Your task to perform on an android device: Look up the best rated headphones on Aliexpress Image 0: 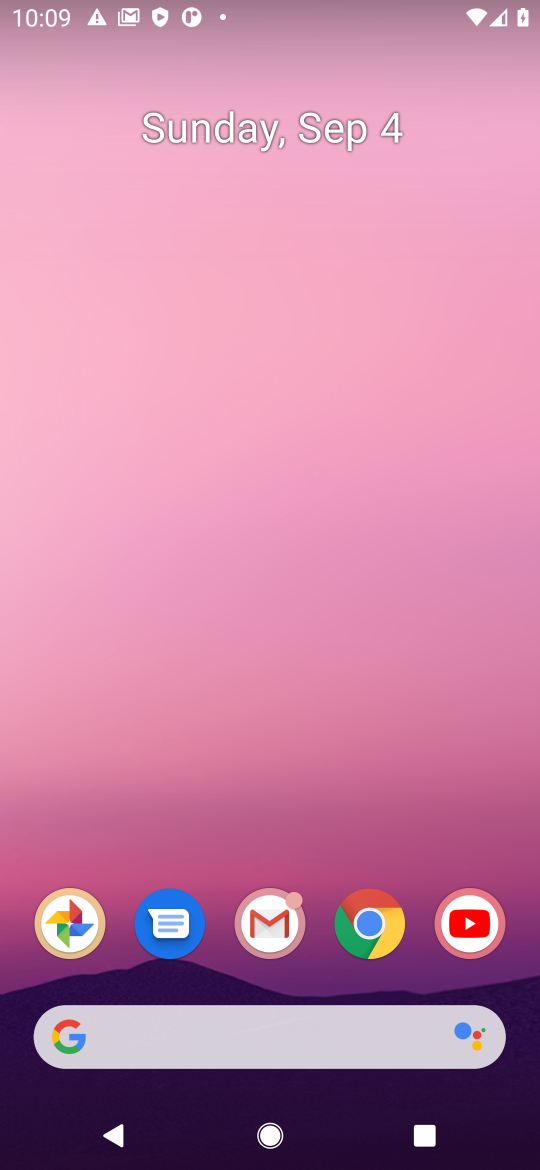
Step 0: click (385, 1043)
Your task to perform on an android device: Look up the best rated headphones on Aliexpress Image 1: 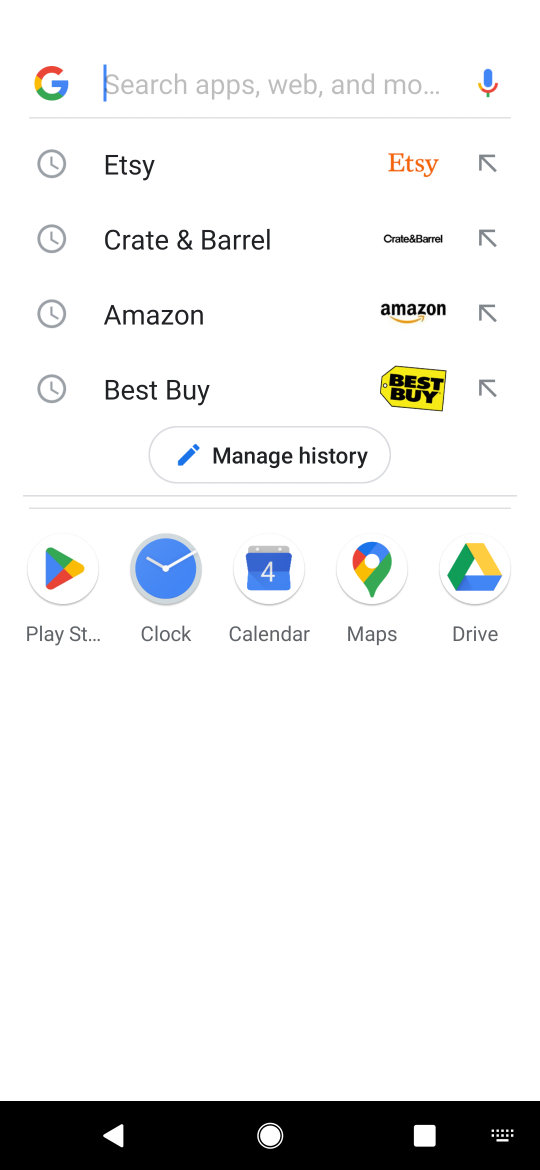
Step 1: press enter
Your task to perform on an android device: Look up the best rated headphones on Aliexpress Image 2: 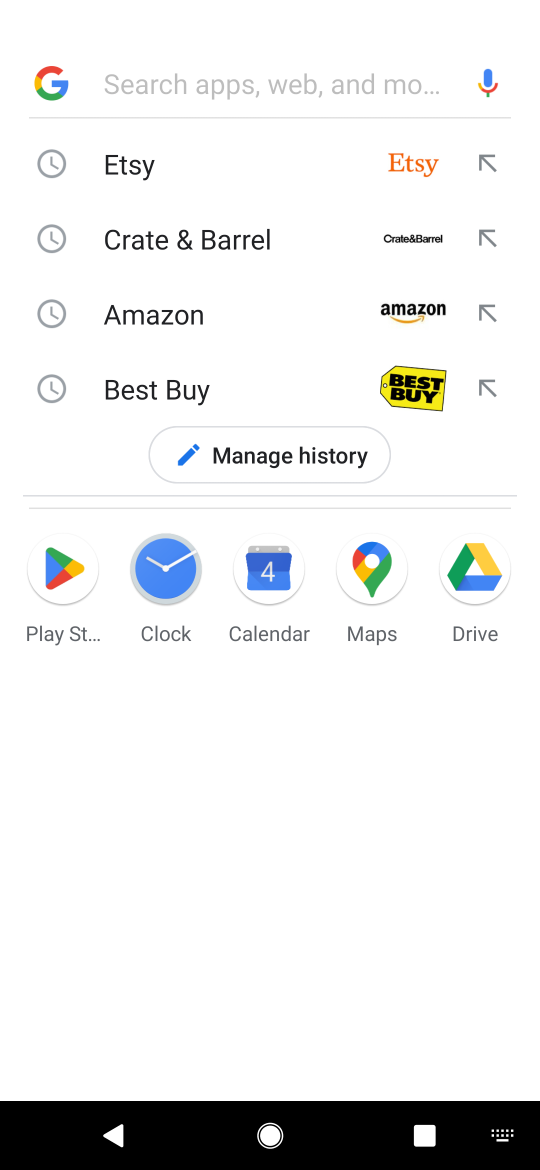
Step 2: type "aliexpress"
Your task to perform on an android device: Look up the best rated headphones on Aliexpress Image 3: 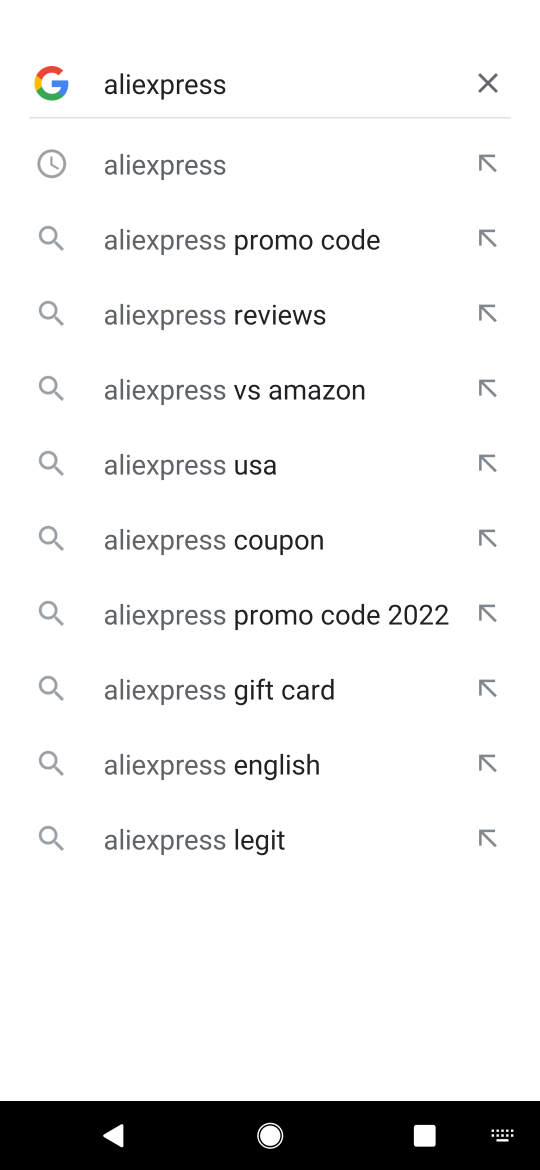
Step 3: click (222, 173)
Your task to perform on an android device: Look up the best rated headphones on Aliexpress Image 4: 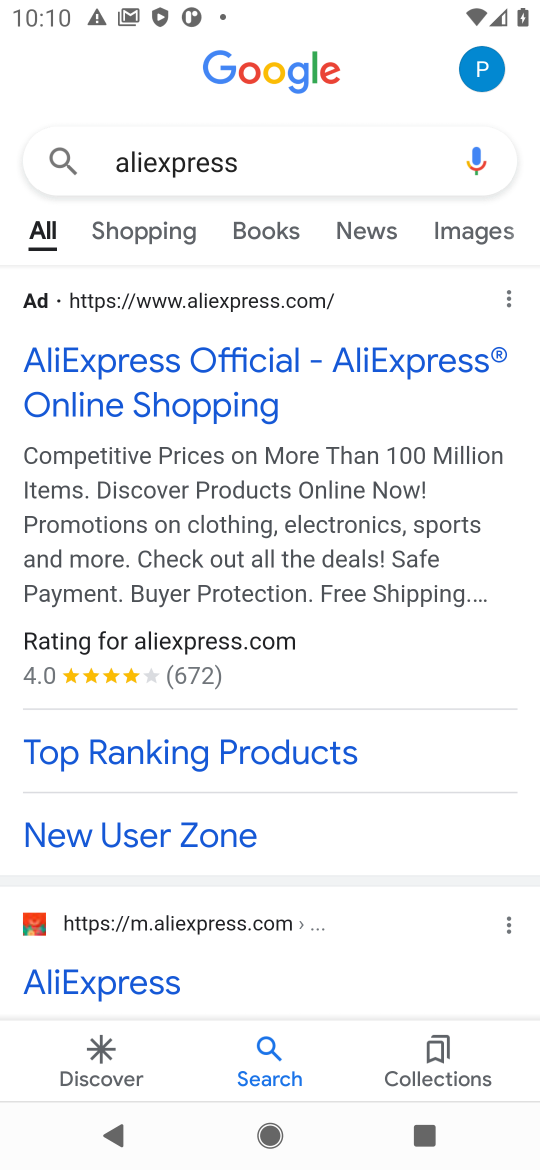
Step 4: click (203, 390)
Your task to perform on an android device: Look up the best rated headphones on Aliexpress Image 5: 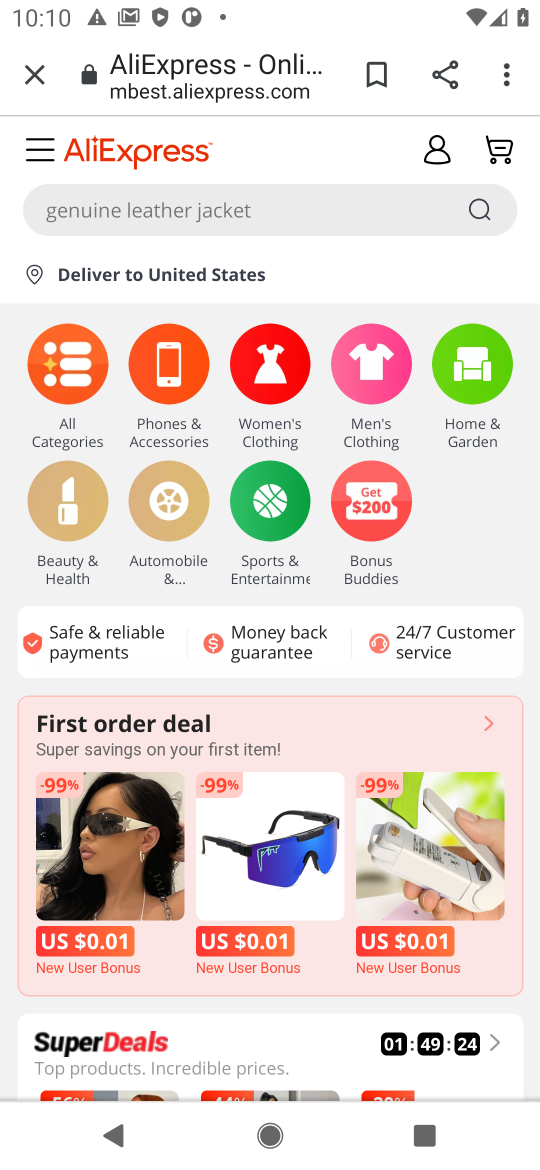
Step 5: click (178, 208)
Your task to perform on an android device: Look up the best rated headphones on Aliexpress Image 6: 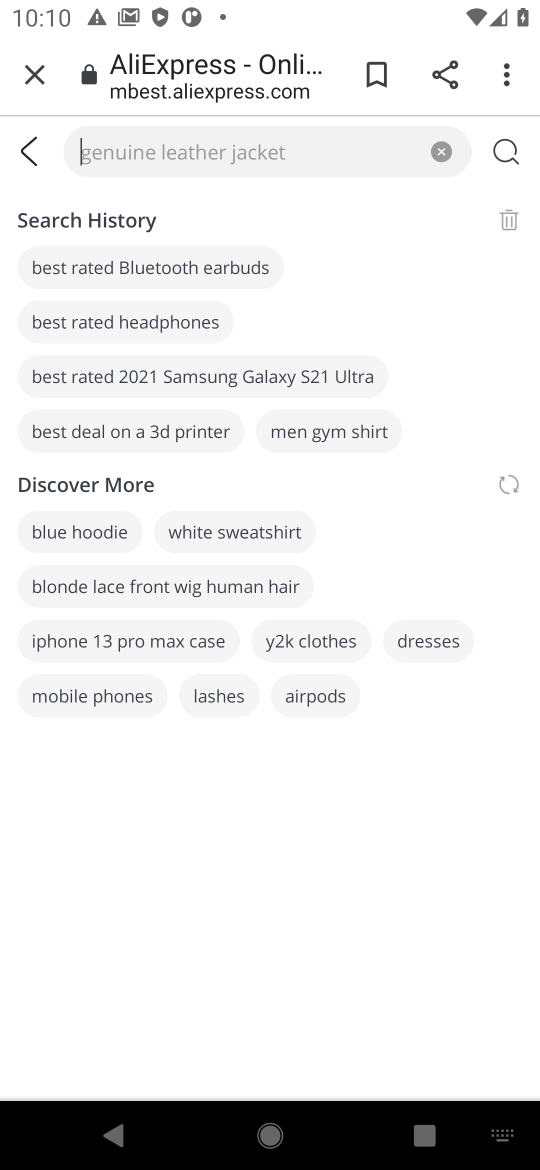
Step 6: click (185, 329)
Your task to perform on an android device: Look up the best rated headphones on Aliexpress Image 7: 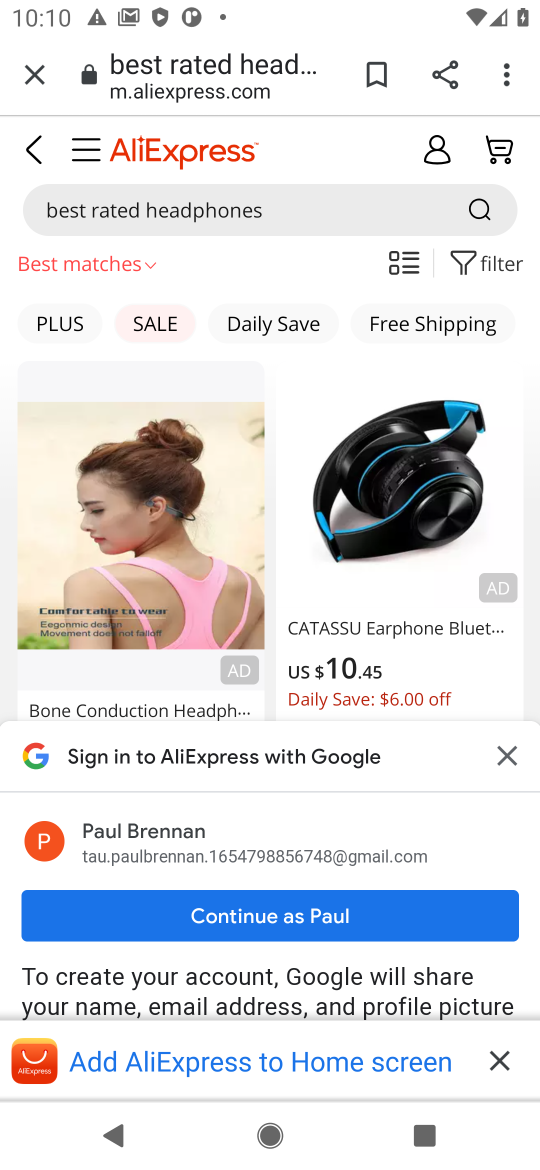
Step 7: task complete